Your task to perform on an android device: check android version Image 0: 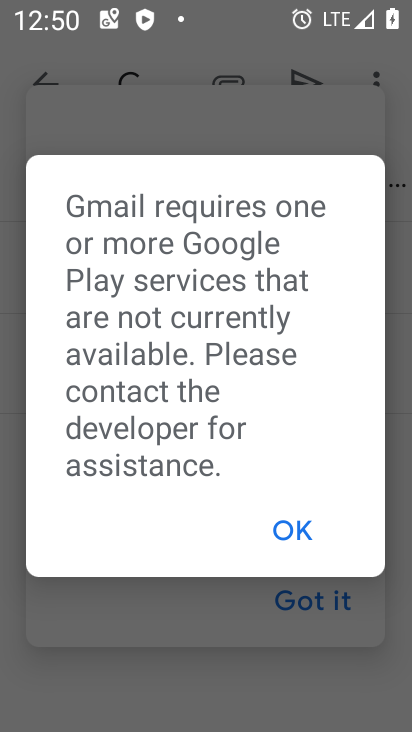
Step 0: press home button
Your task to perform on an android device: check android version Image 1: 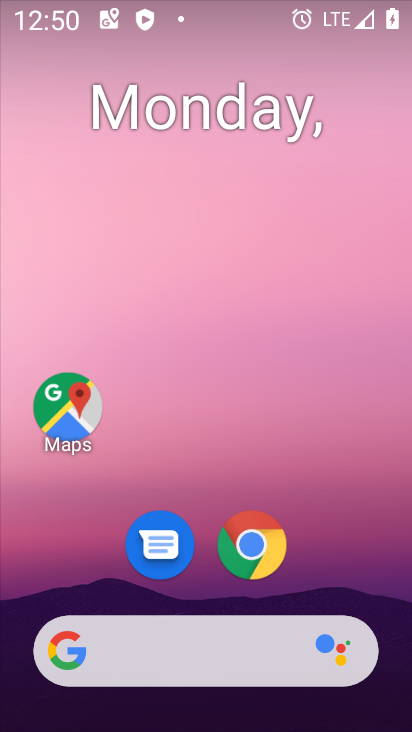
Step 1: drag from (324, 575) to (337, 157)
Your task to perform on an android device: check android version Image 2: 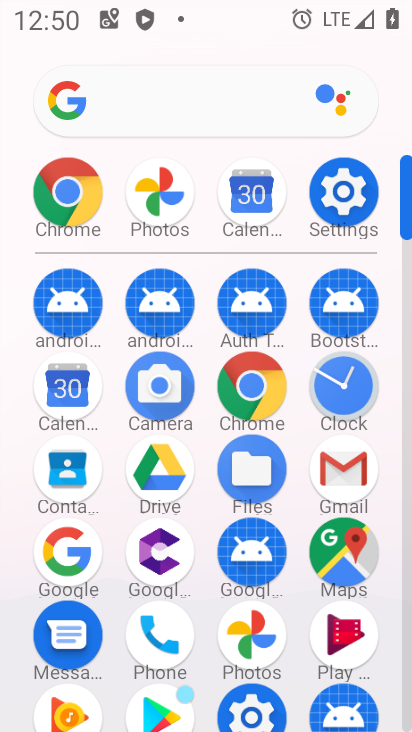
Step 2: click (346, 199)
Your task to perform on an android device: check android version Image 3: 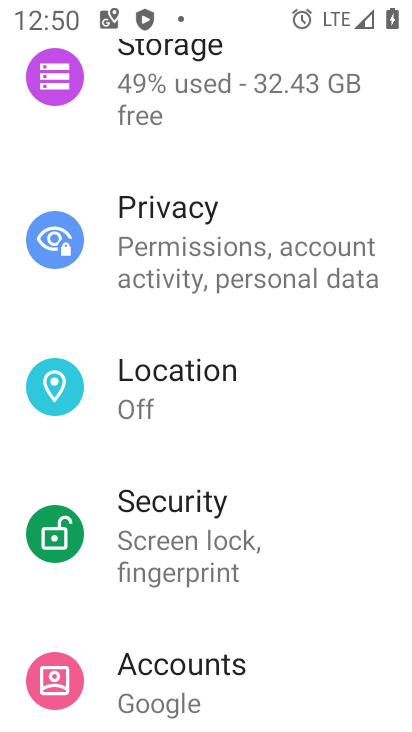
Step 3: drag from (352, 186) to (338, 318)
Your task to perform on an android device: check android version Image 4: 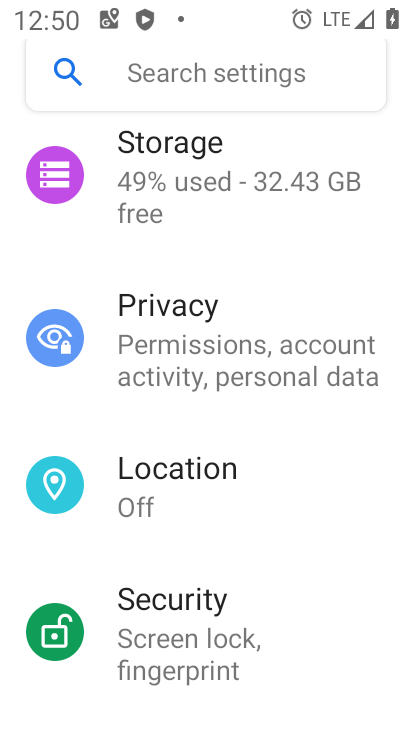
Step 4: drag from (310, 479) to (305, 364)
Your task to perform on an android device: check android version Image 5: 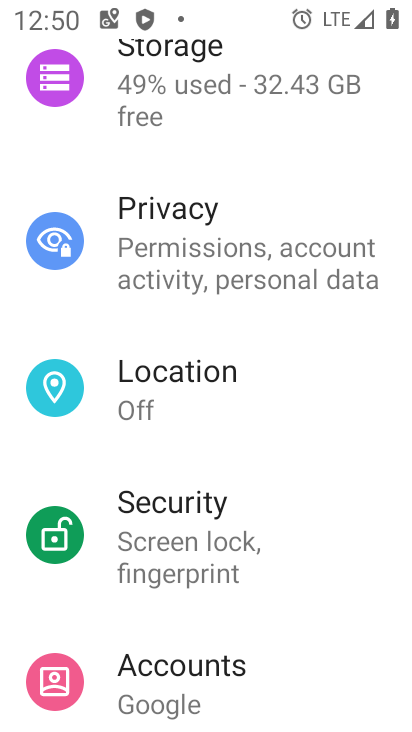
Step 5: drag from (310, 528) to (314, 314)
Your task to perform on an android device: check android version Image 6: 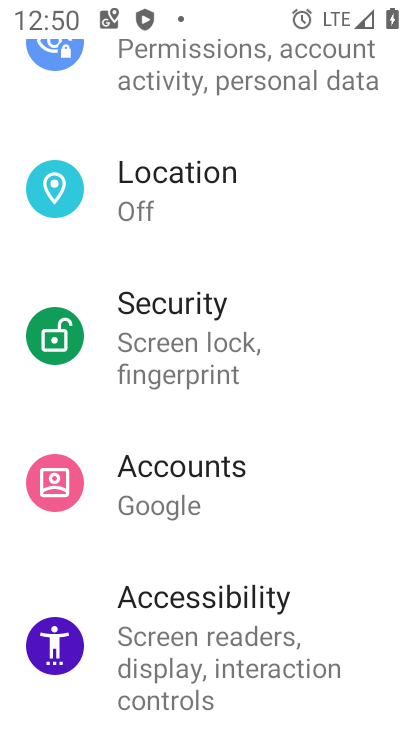
Step 6: drag from (316, 492) to (316, 370)
Your task to perform on an android device: check android version Image 7: 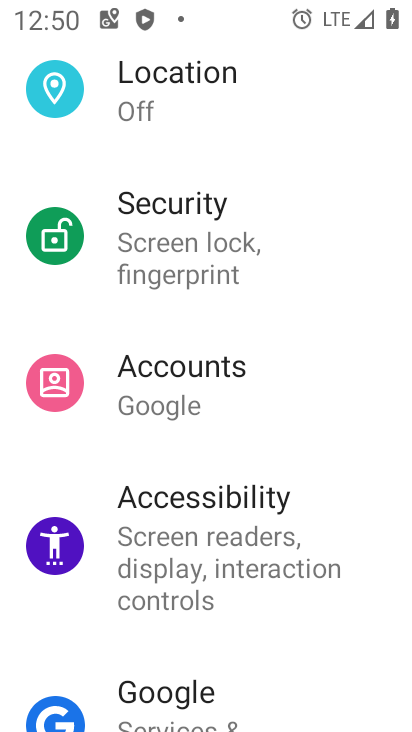
Step 7: drag from (320, 518) to (330, 404)
Your task to perform on an android device: check android version Image 8: 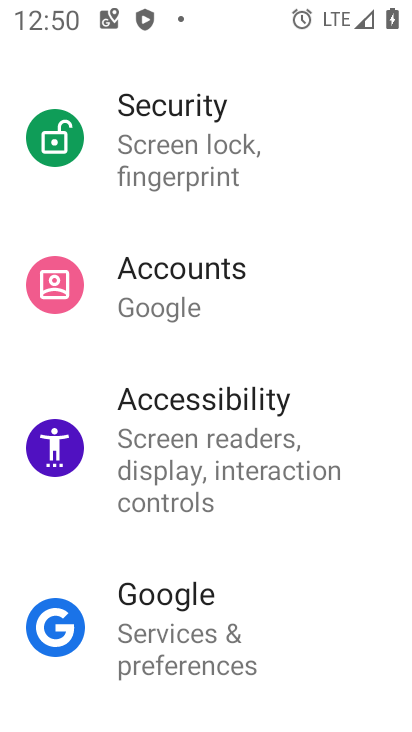
Step 8: drag from (337, 581) to (332, 432)
Your task to perform on an android device: check android version Image 9: 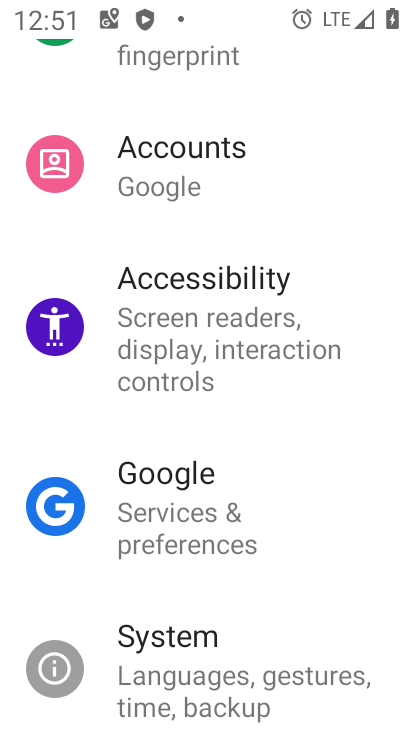
Step 9: drag from (300, 610) to (320, 434)
Your task to perform on an android device: check android version Image 10: 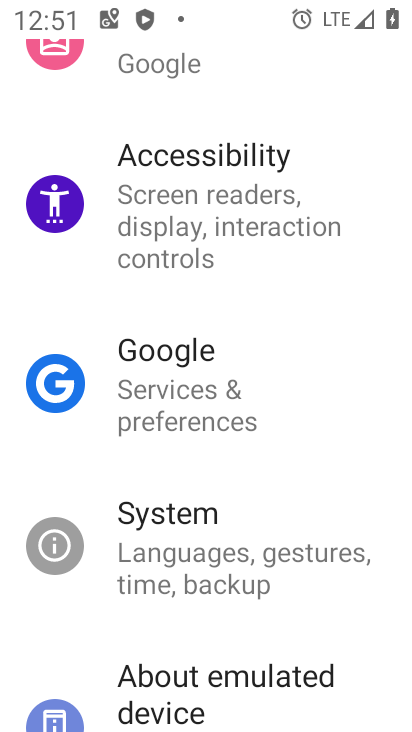
Step 10: click (261, 566)
Your task to perform on an android device: check android version Image 11: 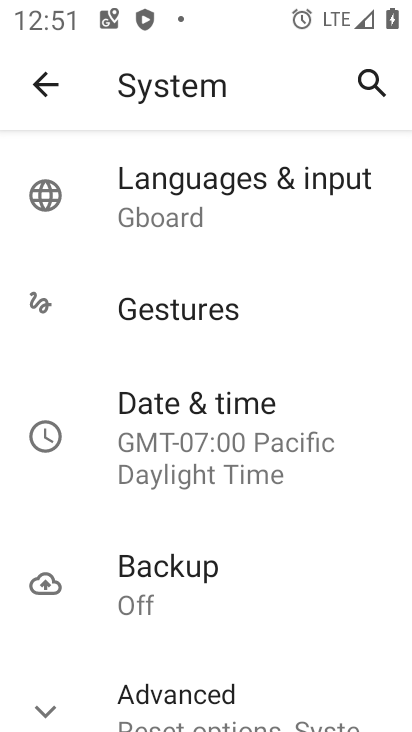
Step 11: drag from (272, 556) to (301, 428)
Your task to perform on an android device: check android version Image 12: 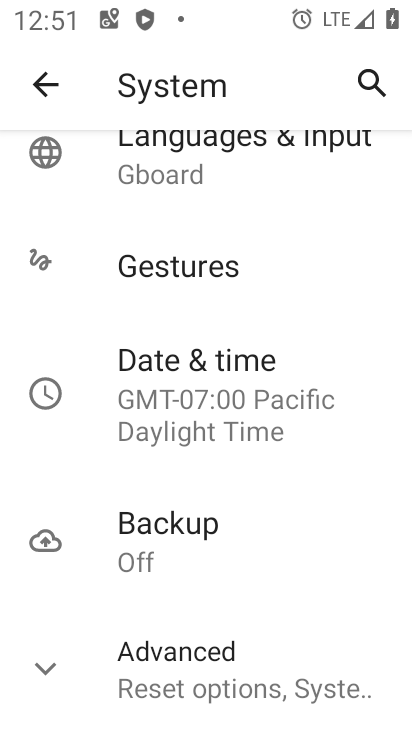
Step 12: click (272, 665)
Your task to perform on an android device: check android version Image 13: 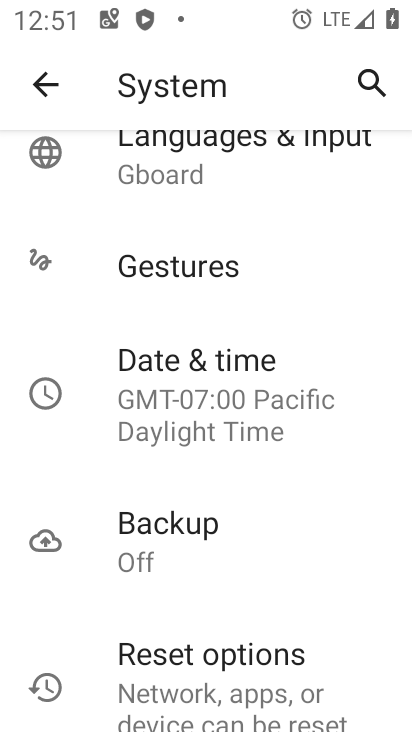
Step 13: drag from (320, 556) to (311, 329)
Your task to perform on an android device: check android version Image 14: 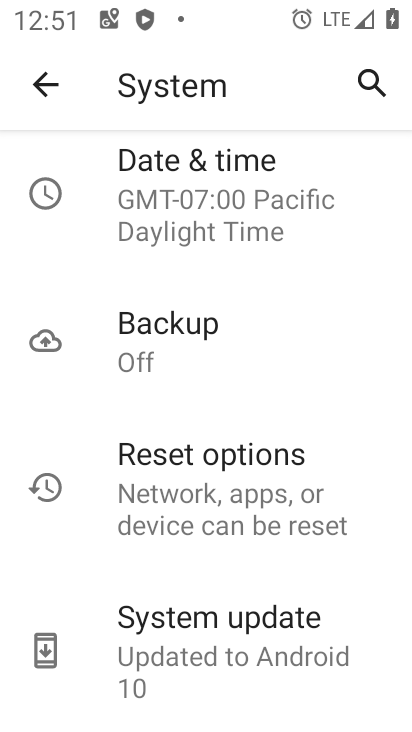
Step 14: click (336, 645)
Your task to perform on an android device: check android version Image 15: 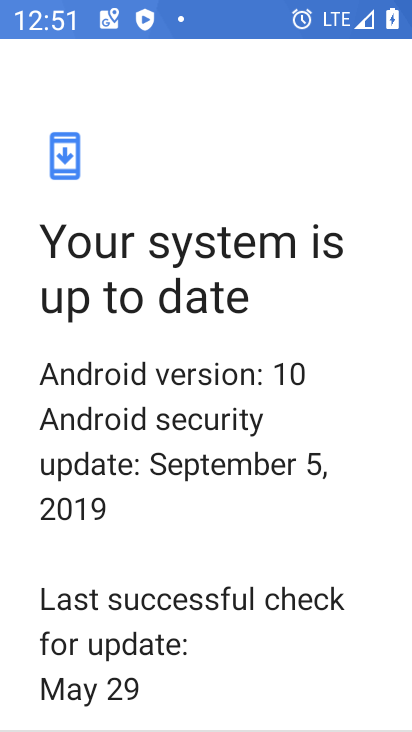
Step 15: task complete